Your task to perform on an android device: toggle data saver in the chrome app Image 0: 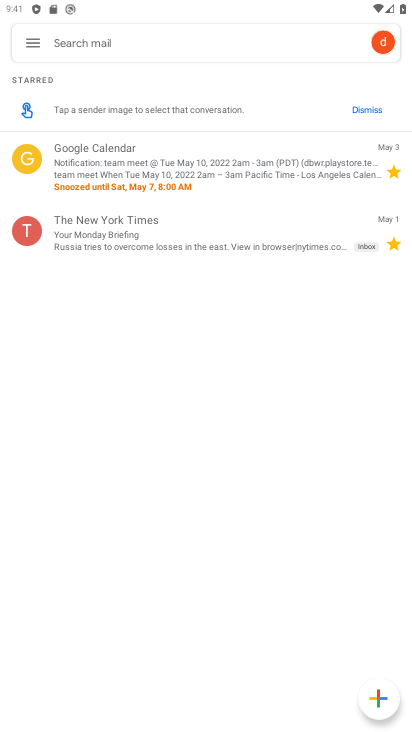
Step 0: press home button
Your task to perform on an android device: toggle data saver in the chrome app Image 1: 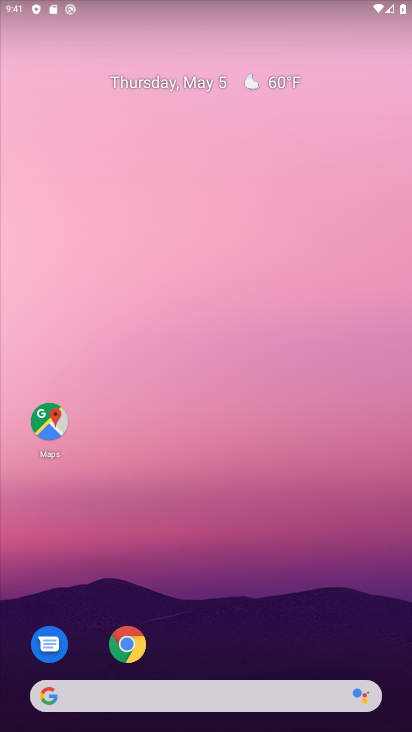
Step 1: drag from (355, 590) to (369, 83)
Your task to perform on an android device: toggle data saver in the chrome app Image 2: 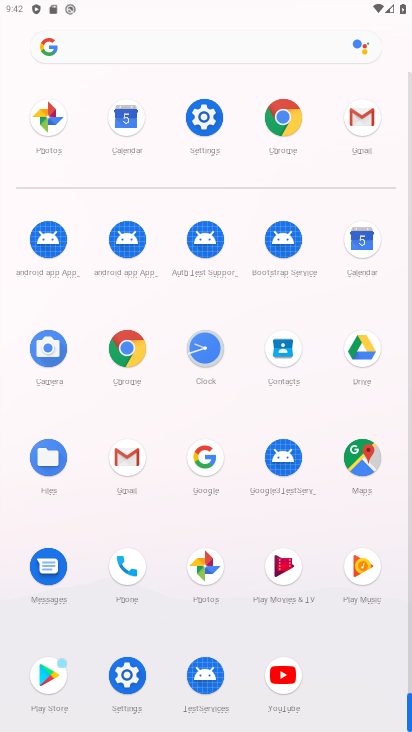
Step 2: click (133, 357)
Your task to perform on an android device: toggle data saver in the chrome app Image 3: 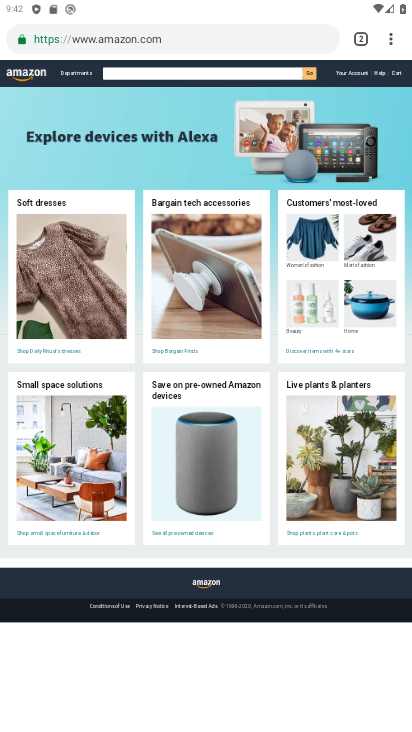
Step 3: drag from (390, 48) to (253, 433)
Your task to perform on an android device: toggle data saver in the chrome app Image 4: 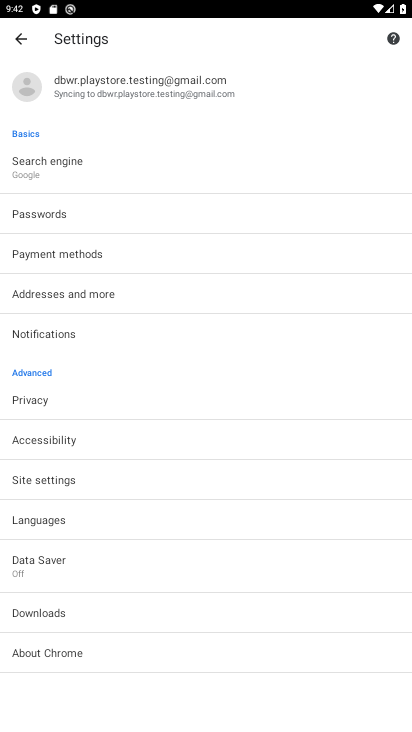
Step 4: click (55, 568)
Your task to perform on an android device: toggle data saver in the chrome app Image 5: 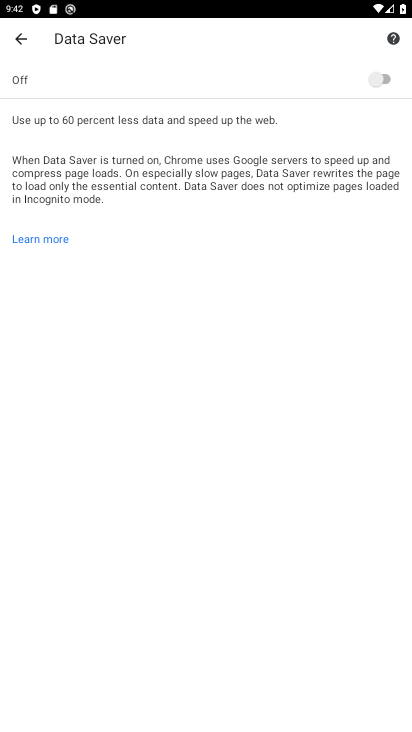
Step 5: click (392, 77)
Your task to perform on an android device: toggle data saver in the chrome app Image 6: 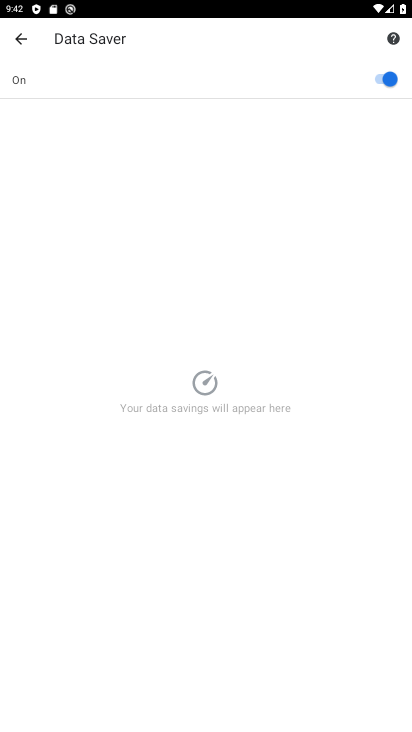
Step 6: task complete